Your task to perform on an android device: set the stopwatch Image 0: 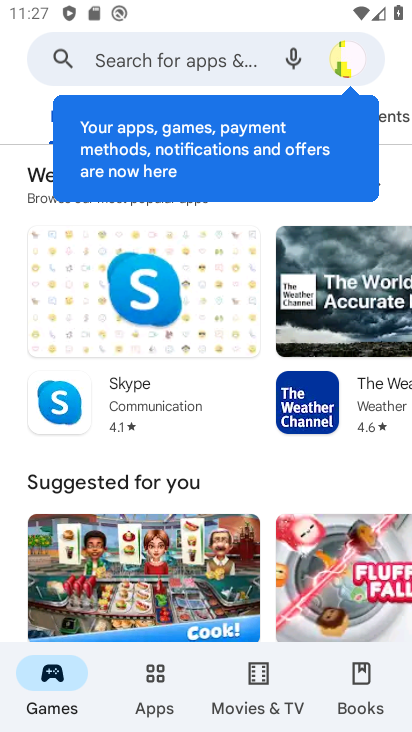
Step 0: press home button
Your task to perform on an android device: set the stopwatch Image 1: 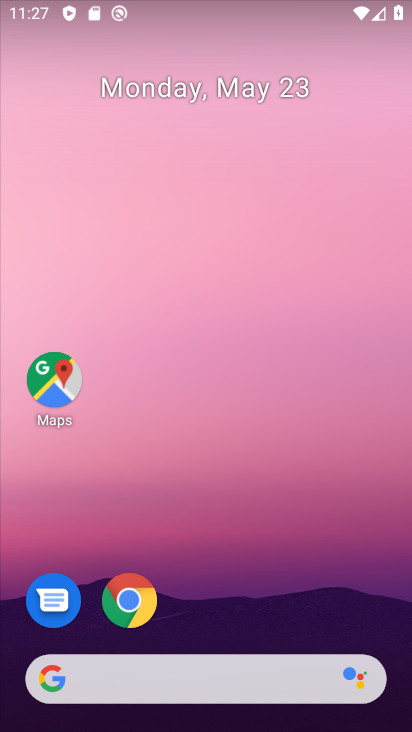
Step 1: drag from (210, 568) to (198, 155)
Your task to perform on an android device: set the stopwatch Image 2: 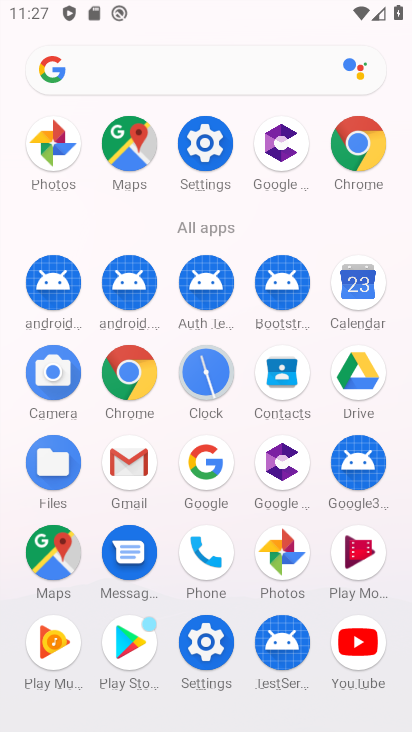
Step 2: click (216, 364)
Your task to perform on an android device: set the stopwatch Image 3: 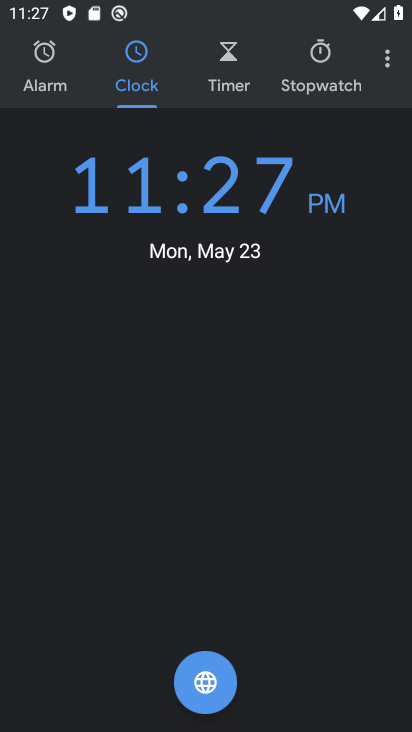
Step 3: click (316, 57)
Your task to perform on an android device: set the stopwatch Image 4: 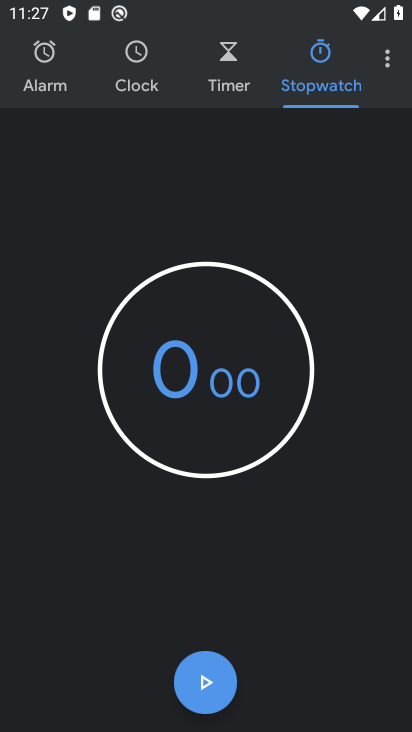
Step 4: click (225, 683)
Your task to perform on an android device: set the stopwatch Image 5: 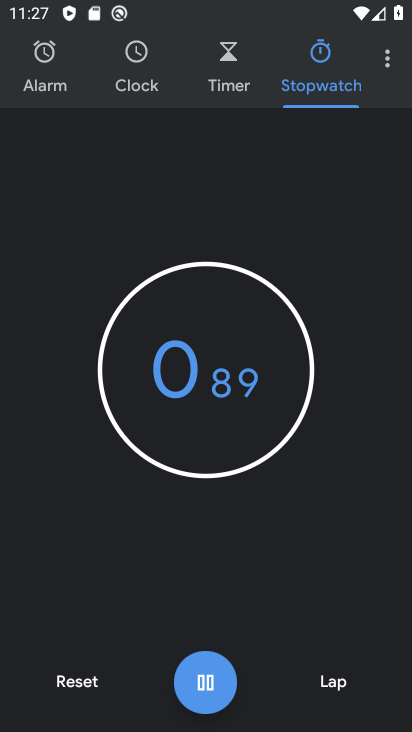
Step 5: click (224, 683)
Your task to perform on an android device: set the stopwatch Image 6: 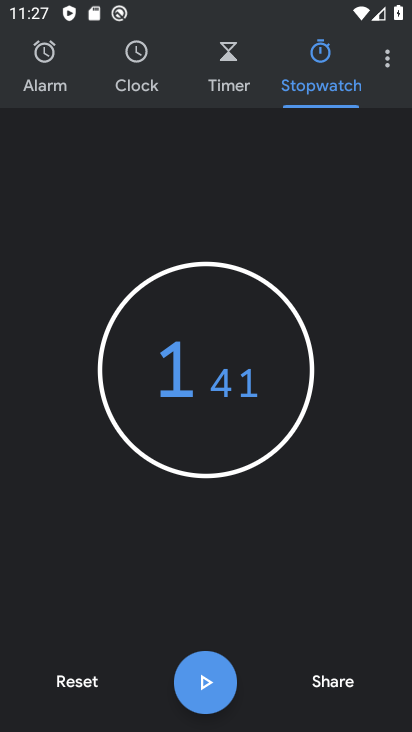
Step 6: task complete